Your task to perform on an android device: Show me recent news Image 0: 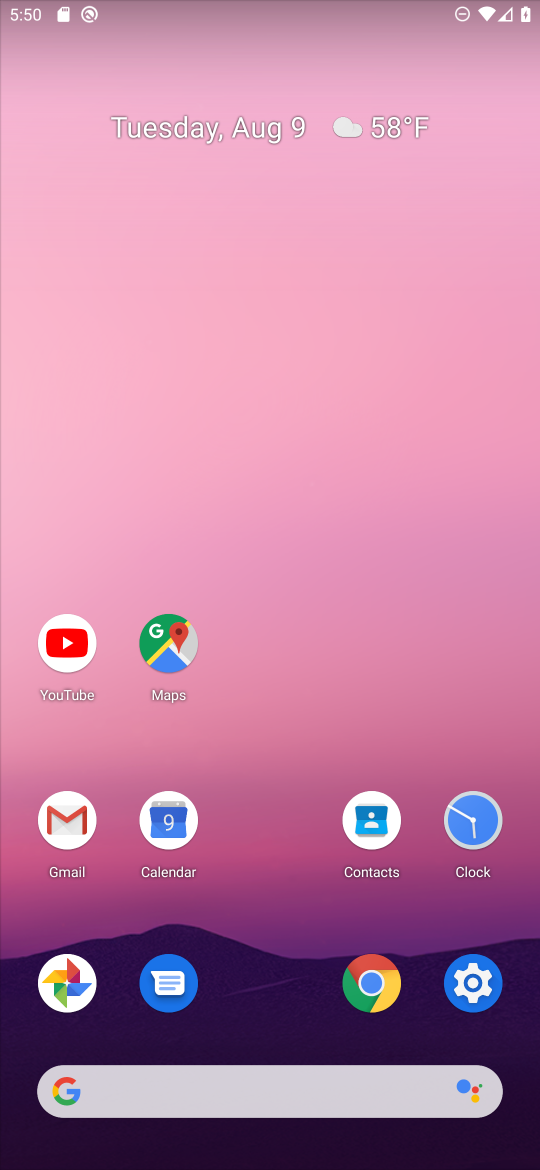
Step 0: drag from (31, 457) to (530, 355)
Your task to perform on an android device: Show me recent news Image 1: 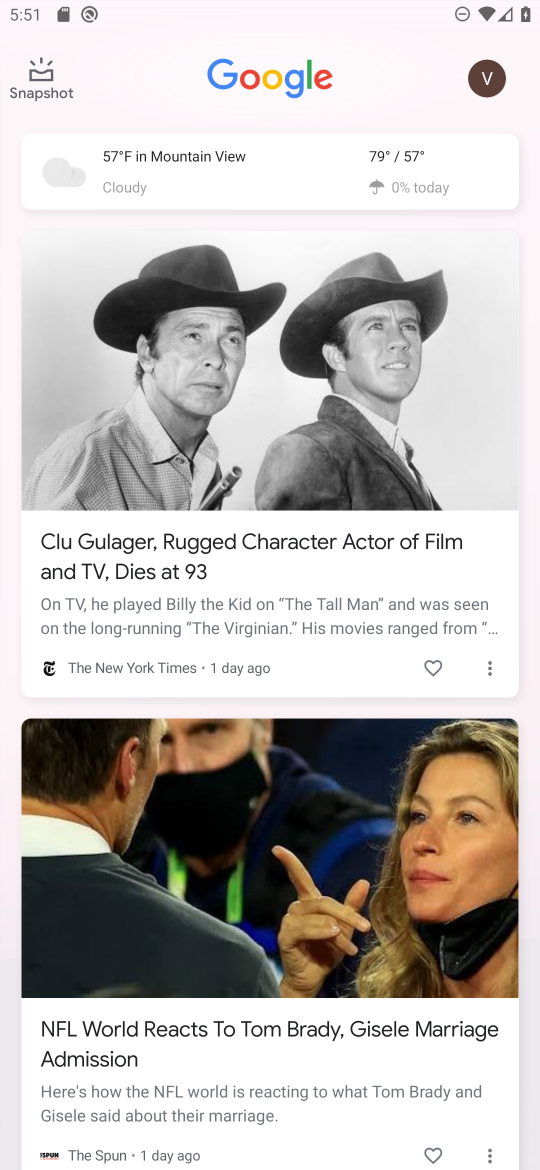
Step 1: task complete